Your task to perform on an android device: open a bookmark in the chrome app Image 0: 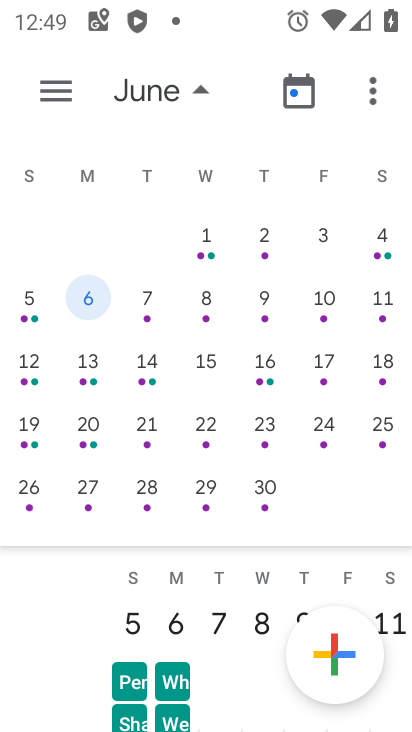
Step 0: press home button
Your task to perform on an android device: open a bookmark in the chrome app Image 1: 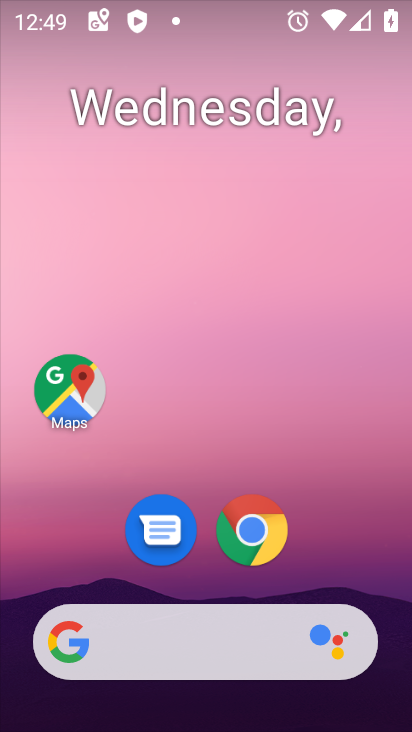
Step 1: click (254, 529)
Your task to perform on an android device: open a bookmark in the chrome app Image 2: 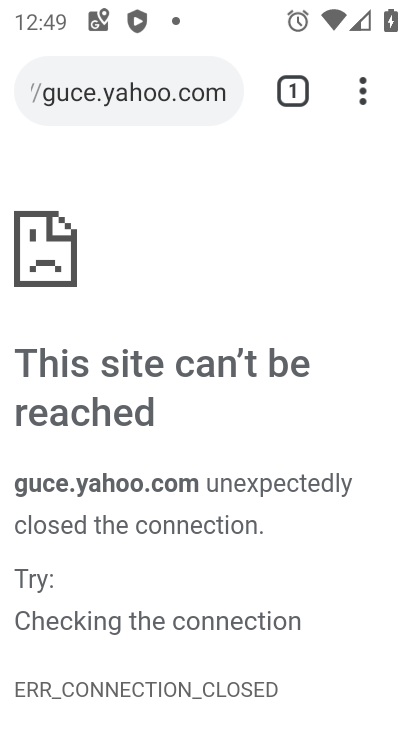
Step 2: task complete